Your task to perform on an android device: Go to privacy settings Image 0: 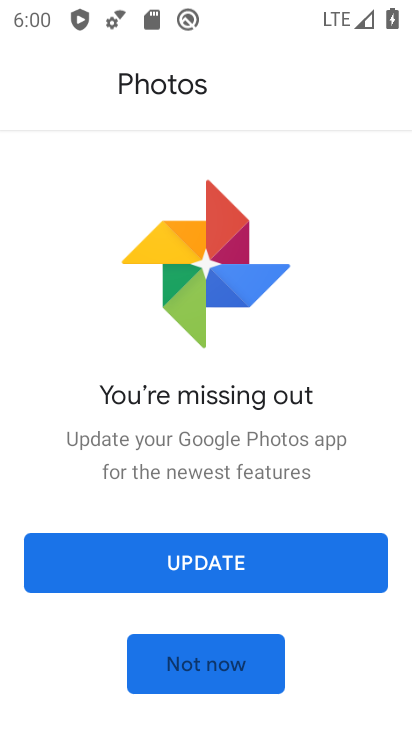
Step 0: press home button
Your task to perform on an android device: Go to privacy settings Image 1: 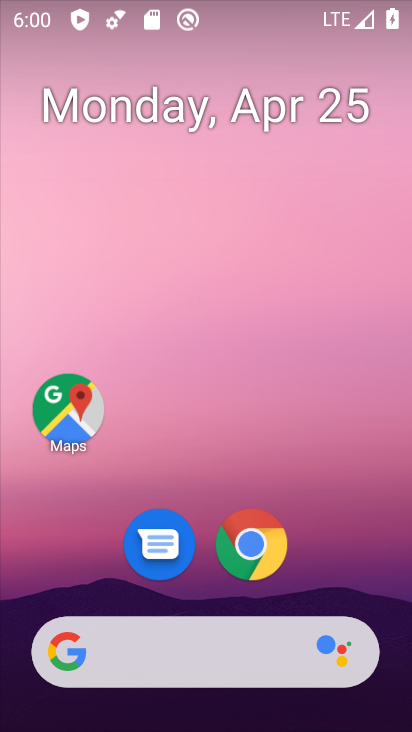
Step 1: click (365, 567)
Your task to perform on an android device: Go to privacy settings Image 2: 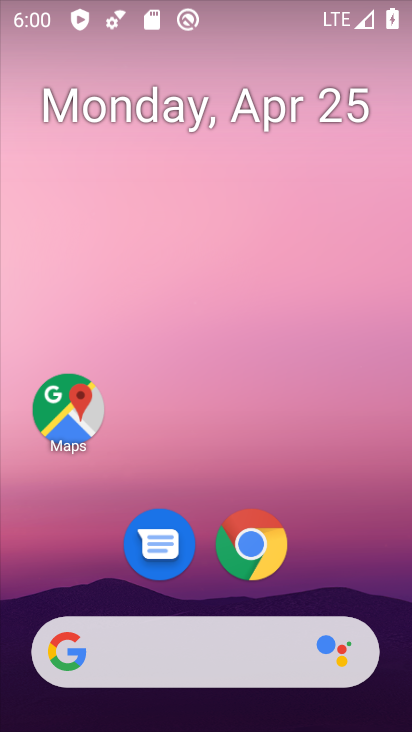
Step 2: drag from (365, 567) to (358, 3)
Your task to perform on an android device: Go to privacy settings Image 3: 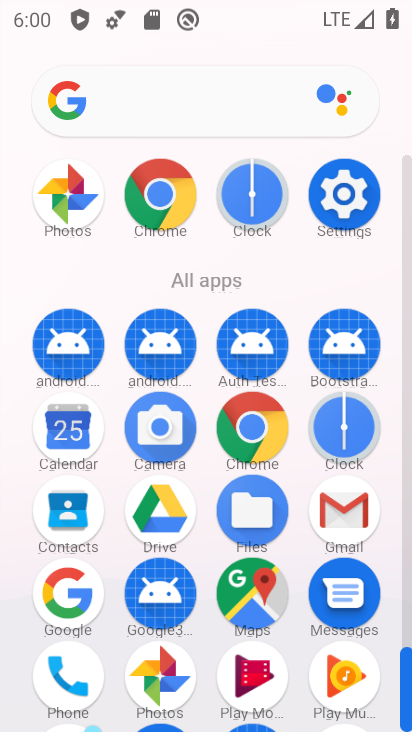
Step 3: click (347, 187)
Your task to perform on an android device: Go to privacy settings Image 4: 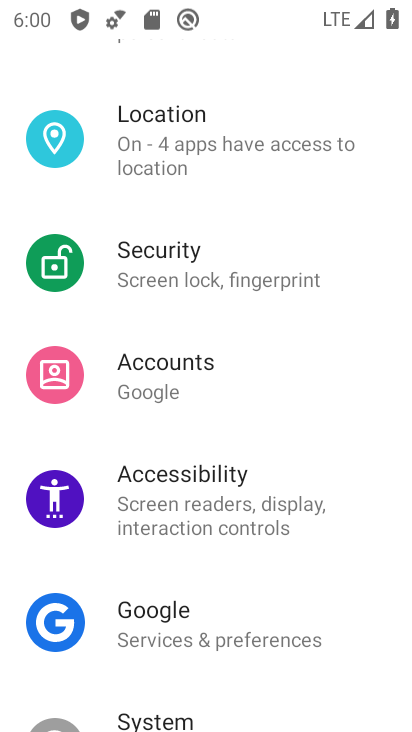
Step 4: drag from (207, 178) to (244, 646)
Your task to perform on an android device: Go to privacy settings Image 5: 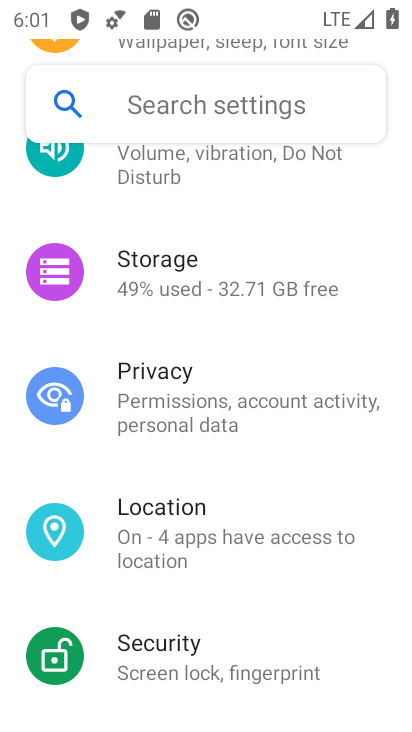
Step 5: click (253, 409)
Your task to perform on an android device: Go to privacy settings Image 6: 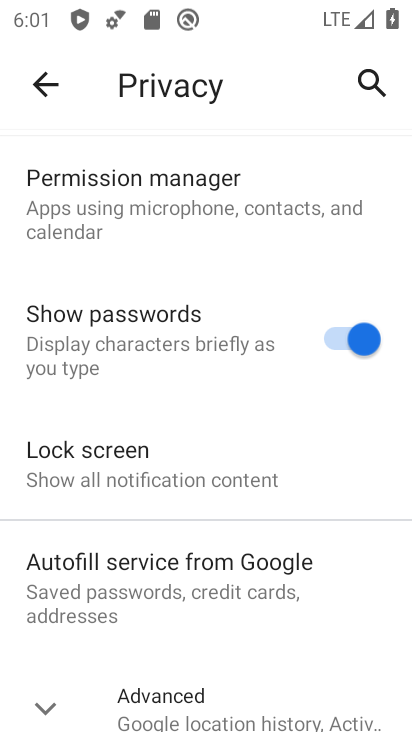
Step 6: task complete